Your task to perform on an android device: toggle data saver in the chrome app Image 0: 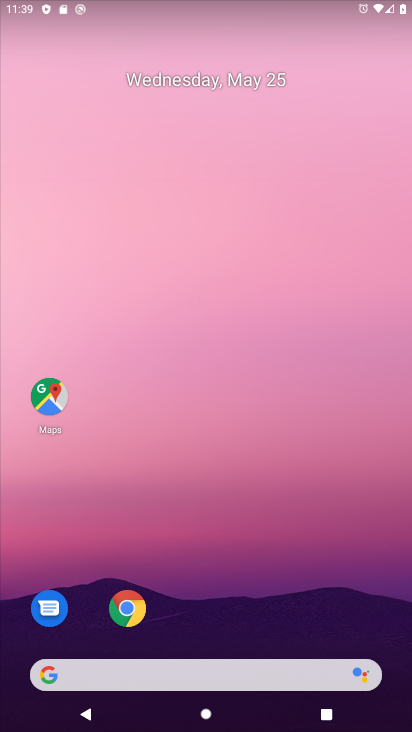
Step 0: click (126, 608)
Your task to perform on an android device: toggle data saver in the chrome app Image 1: 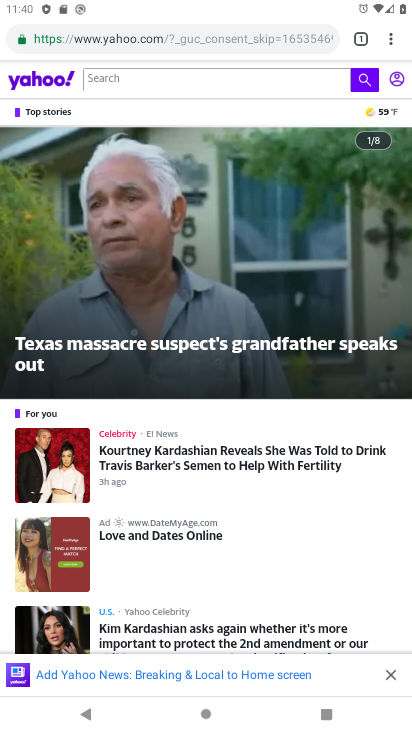
Step 1: click (391, 44)
Your task to perform on an android device: toggle data saver in the chrome app Image 2: 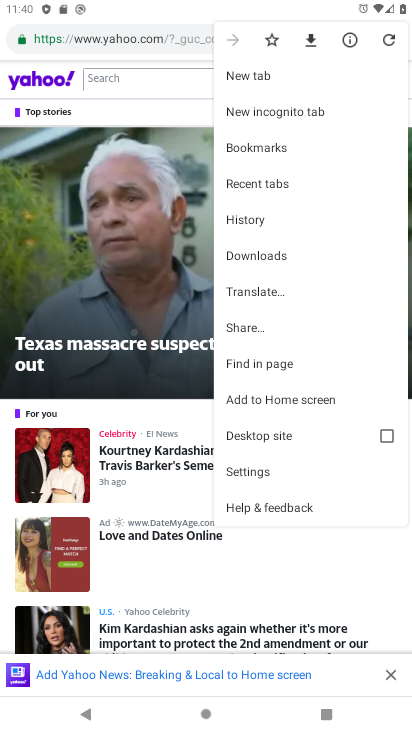
Step 2: click (255, 469)
Your task to perform on an android device: toggle data saver in the chrome app Image 3: 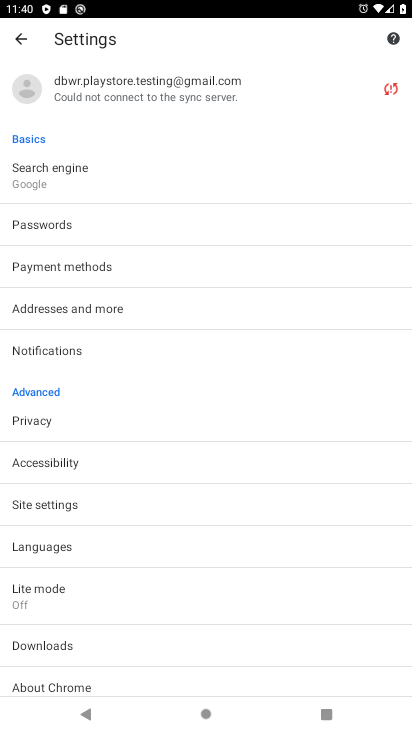
Step 3: click (36, 587)
Your task to perform on an android device: toggle data saver in the chrome app Image 4: 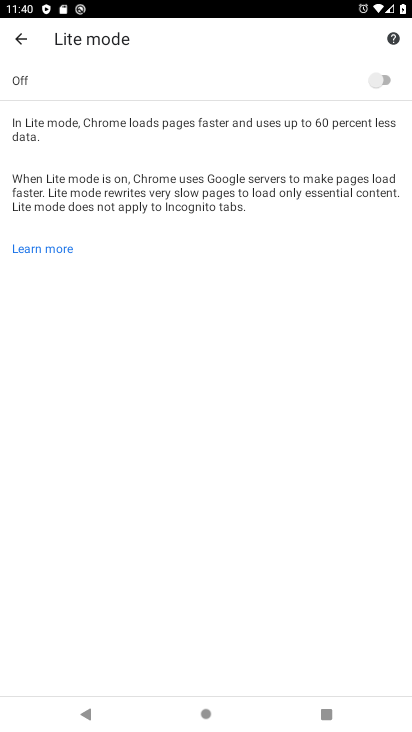
Step 4: click (387, 76)
Your task to perform on an android device: toggle data saver in the chrome app Image 5: 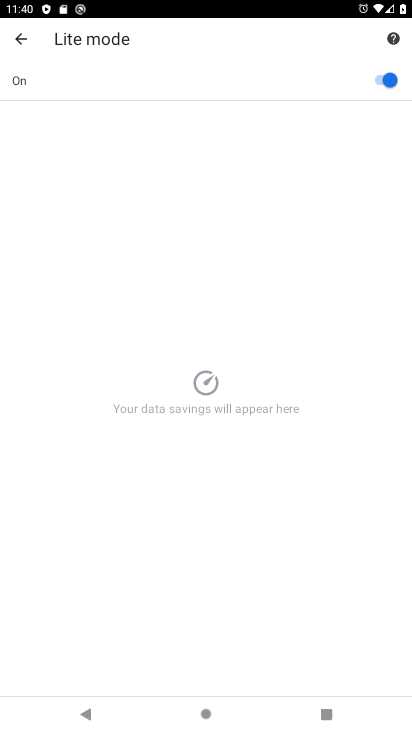
Step 5: task complete